Your task to perform on an android device: Search for Mexican restaurants on Maps Image 0: 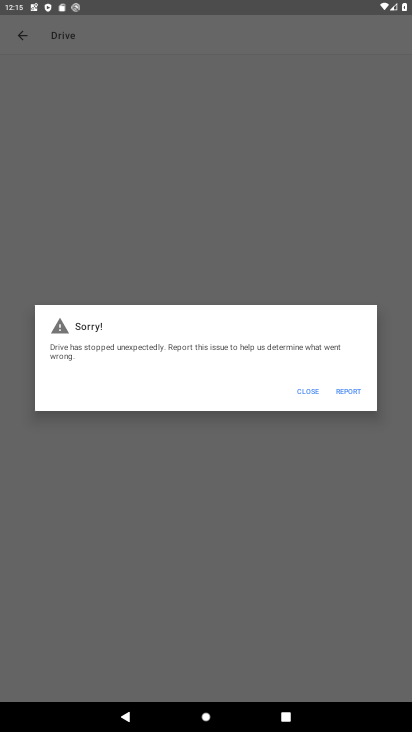
Step 0: press home button
Your task to perform on an android device: Search for Mexican restaurants on Maps Image 1: 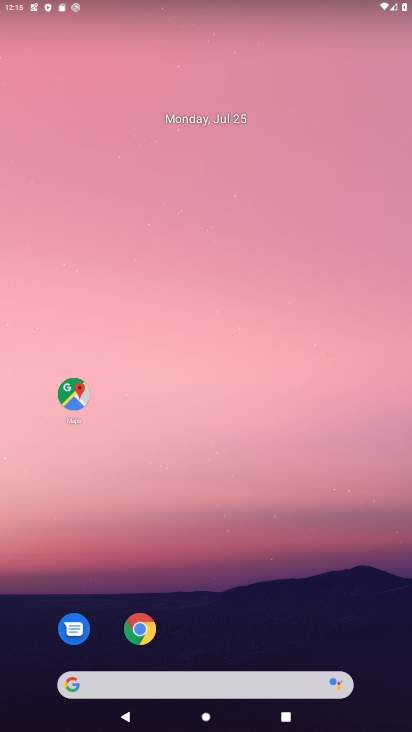
Step 1: drag from (250, 629) to (257, 9)
Your task to perform on an android device: Search for Mexican restaurants on Maps Image 2: 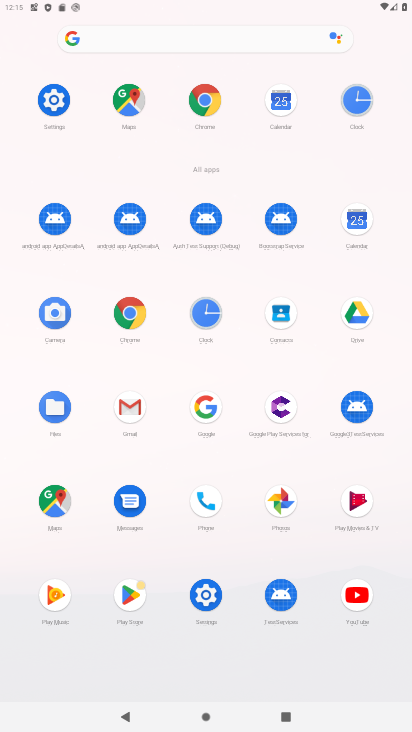
Step 2: click (133, 114)
Your task to perform on an android device: Search for Mexican restaurants on Maps Image 3: 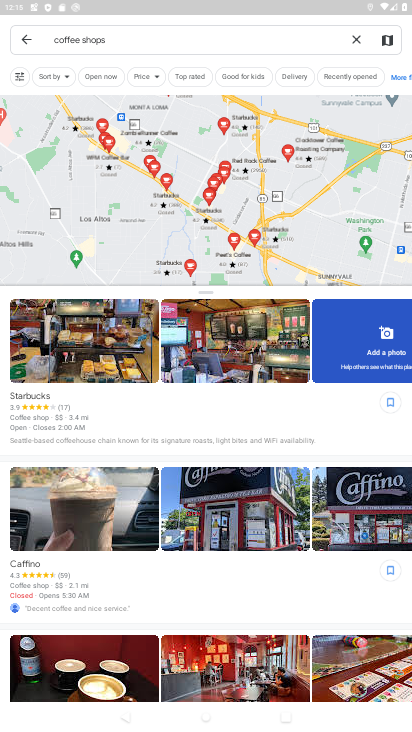
Step 3: click (356, 43)
Your task to perform on an android device: Search for Mexican restaurants on Maps Image 4: 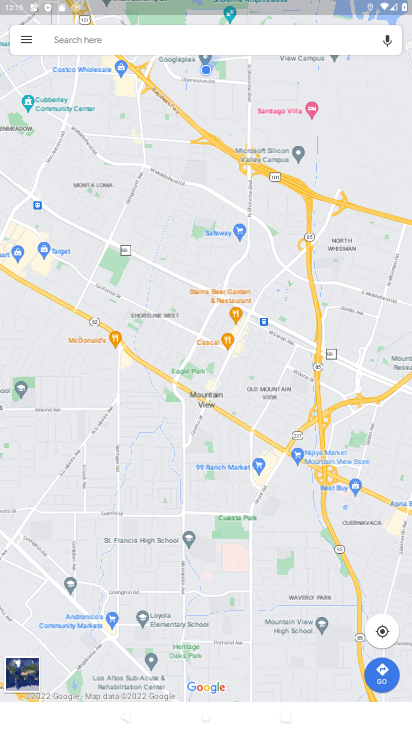
Step 4: click (193, 36)
Your task to perform on an android device: Search for Mexican restaurants on Maps Image 5: 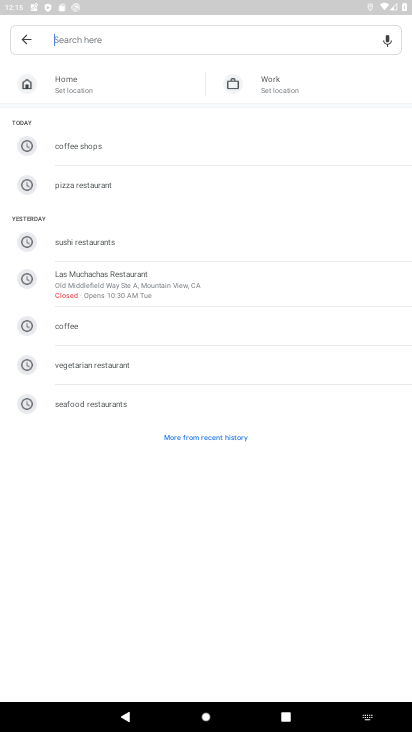
Step 5: type "Mexican restaurants"
Your task to perform on an android device: Search for Mexican restaurants on Maps Image 6: 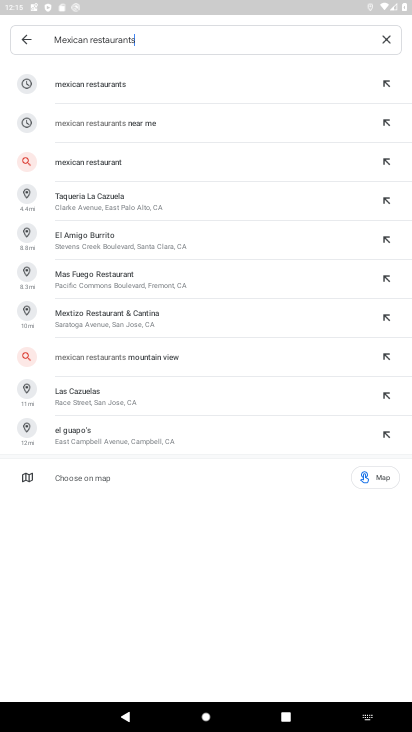
Step 6: click (282, 86)
Your task to perform on an android device: Search for Mexican restaurants on Maps Image 7: 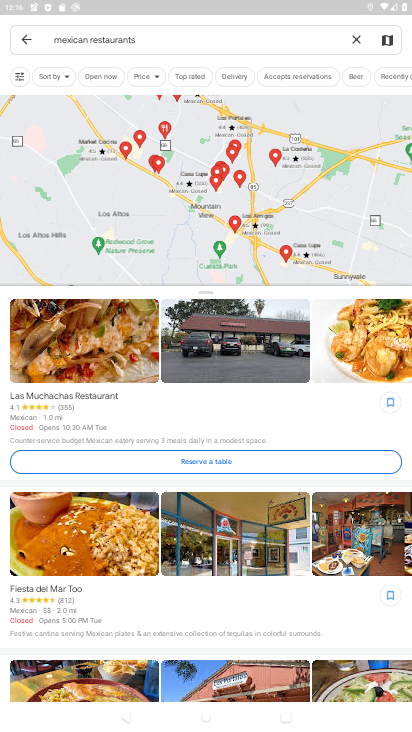
Step 7: task complete